Your task to perform on an android device: allow notifications from all sites in the chrome app Image 0: 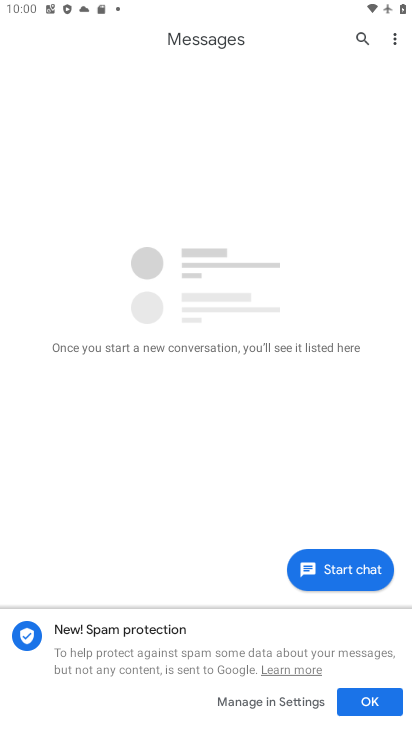
Step 0: press home button
Your task to perform on an android device: allow notifications from all sites in the chrome app Image 1: 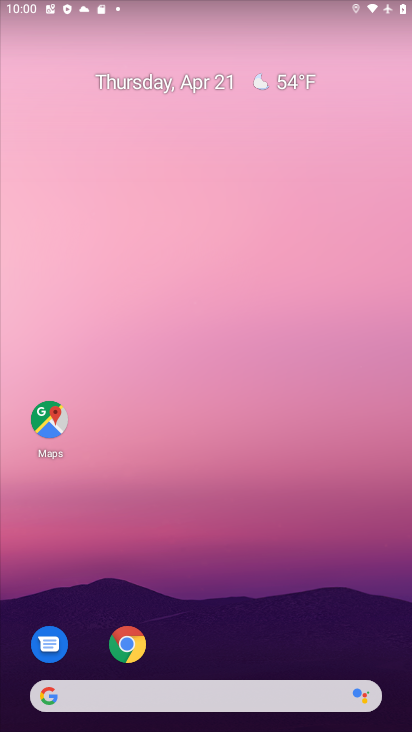
Step 1: click (141, 646)
Your task to perform on an android device: allow notifications from all sites in the chrome app Image 2: 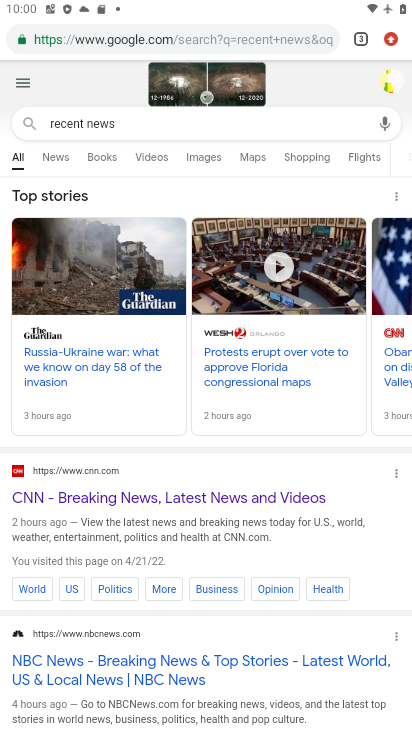
Step 2: drag from (391, 37) to (259, 467)
Your task to perform on an android device: allow notifications from all sites in the chrome app Image 3: 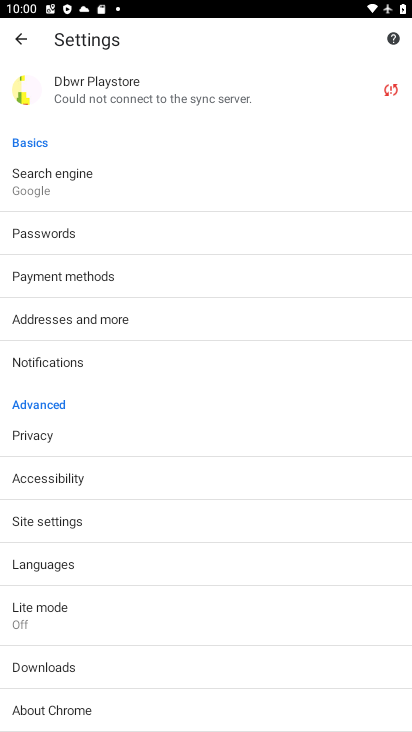
Step 3: click (49, 363)
Your task to perform on an android device: allow notifications from all sites in the chrome app Image 4: 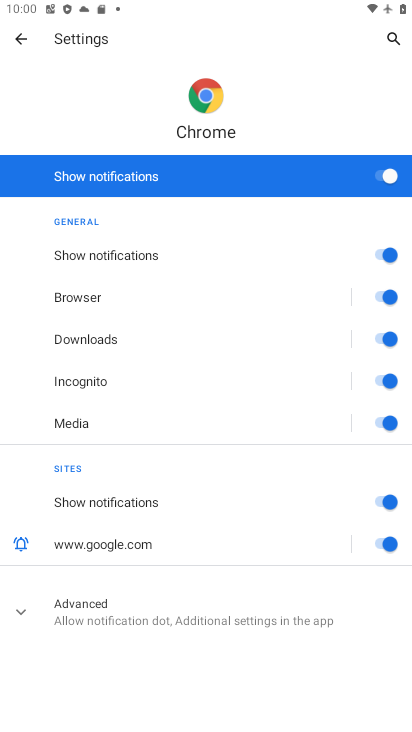
Step 4: task complete